Your task to perform on an android device: turn off picture-in-picture Image 0: 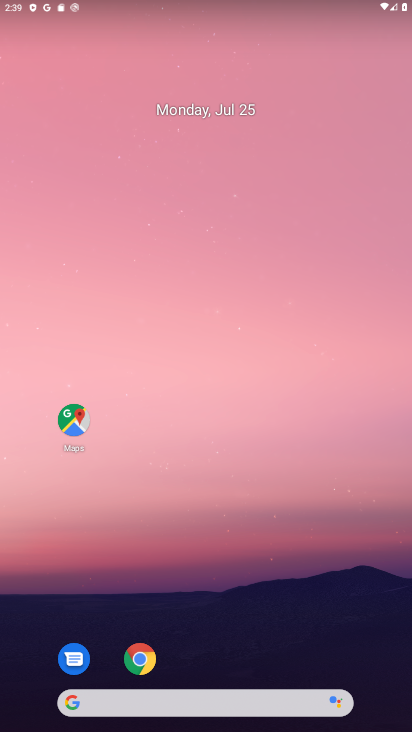
Step 0: drag from (219, 651) to (194, 95)
Your task to perform on an android device: turn off picture-in-picture Image 1: 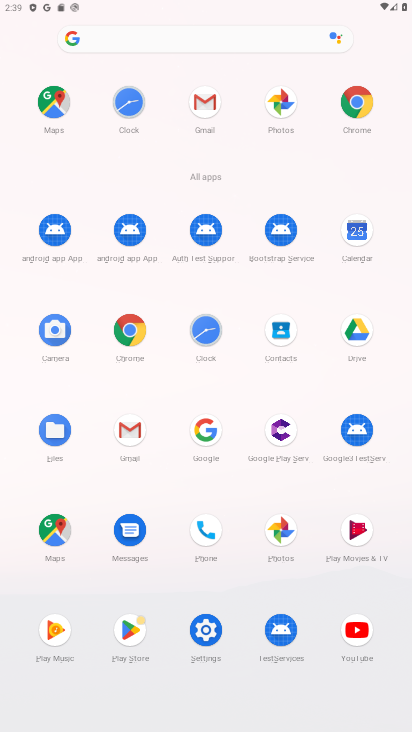
Step 1: click (211, 627)
Your task to perform on an android device: turn off picture-in-picture Image 2: 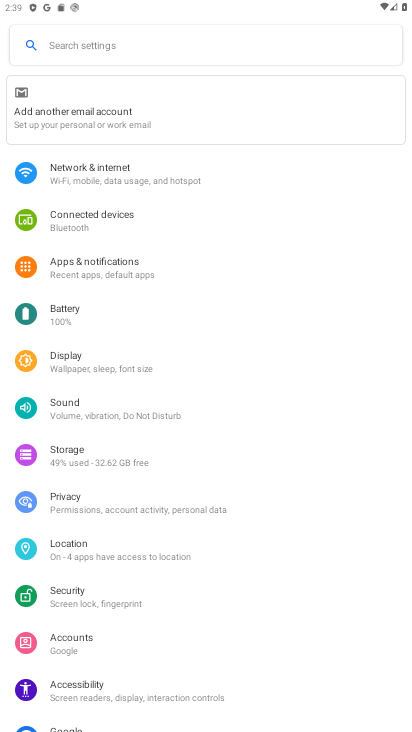
Step 2: click (112, 280)
Your task to perform on an android device: turn off picture-in-picture Image 3: 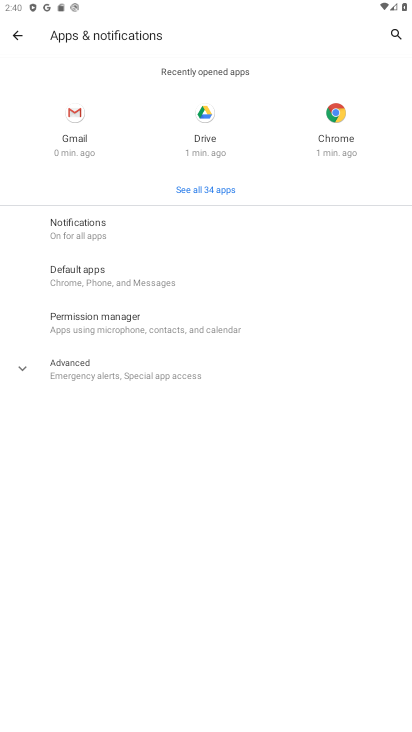
Step 3: click (97, 350)
Your task to perform on an android device: turn off picture-in-picture Image 4: 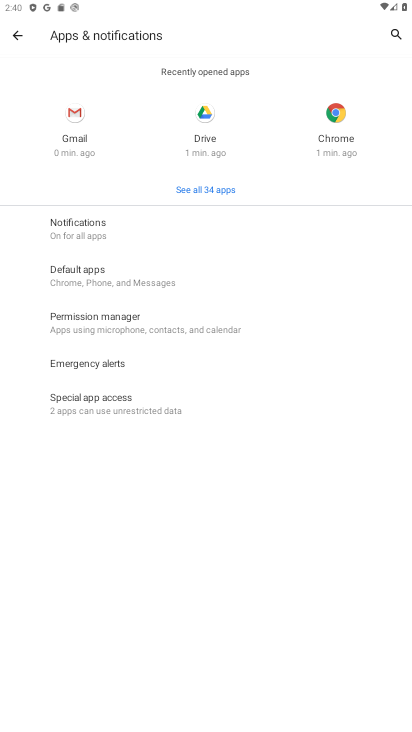
Step 4: click (87, 242)
Your task to perform on an android device: turn off picture-in-picture Image 5: 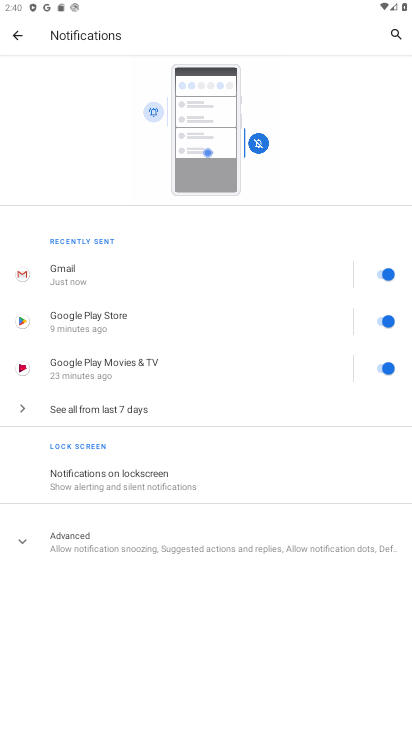
Step 5: click (132, 522)
Your task to perform on an android device: turn off picture-in-picture Image 6: 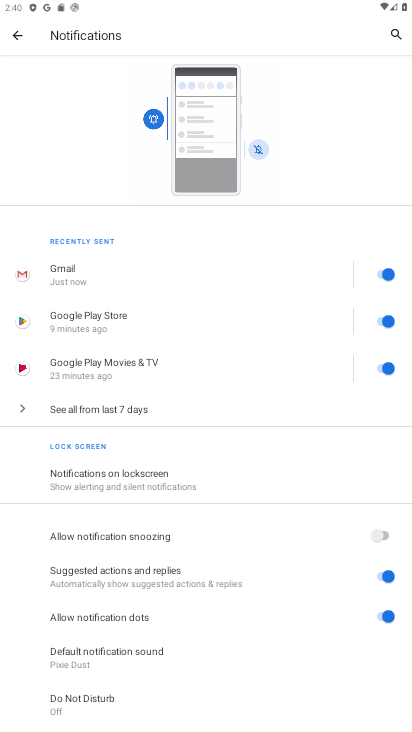
Step 6: task complete